Your task to perform on an android device: Search for top rated burger restaurants on Google Maps Image 0: 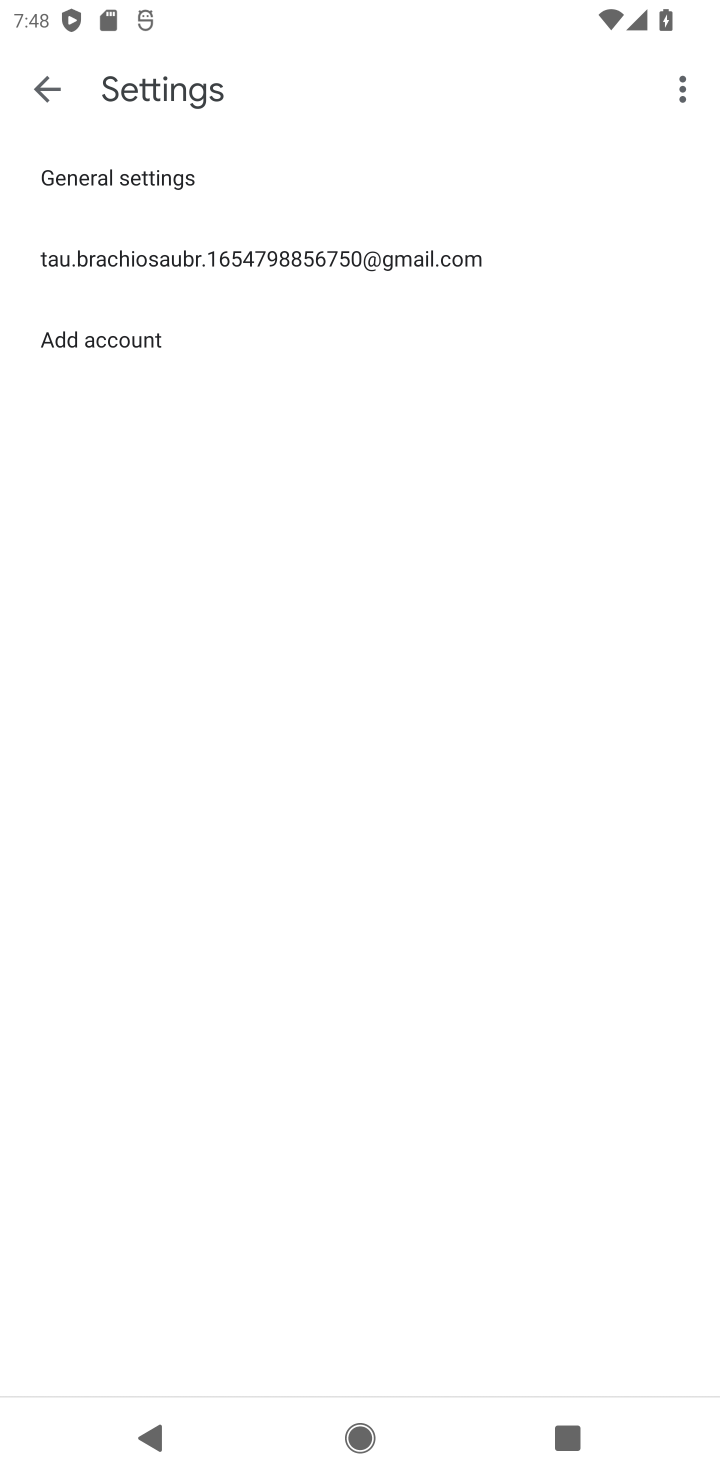
Step 0: press home button
Your task to perform on an android device: Search for top rated burger restaurants on Google Maps Image 1: 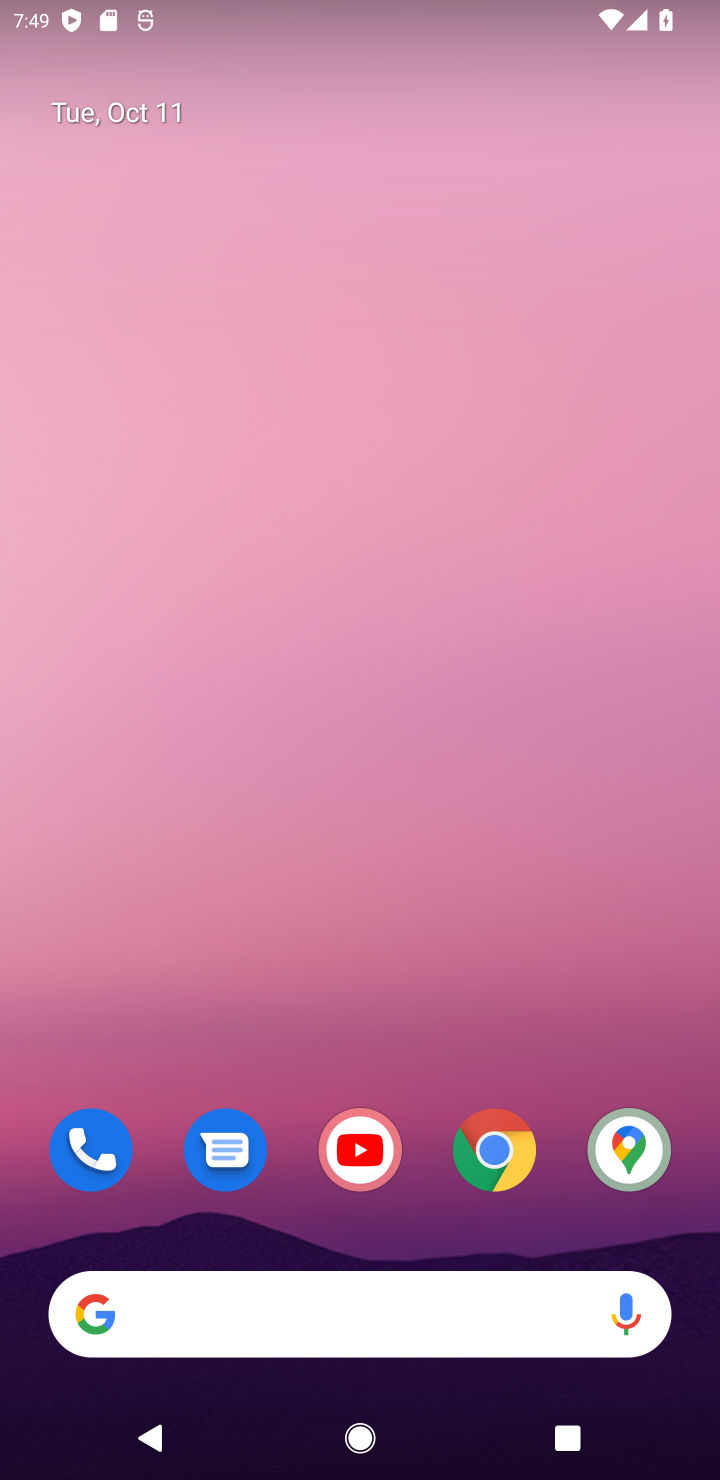
Step 1: click (615, 1146)
Your task to perform on an android device: Search for top rated burger restaurants on Google Maps Image 2: 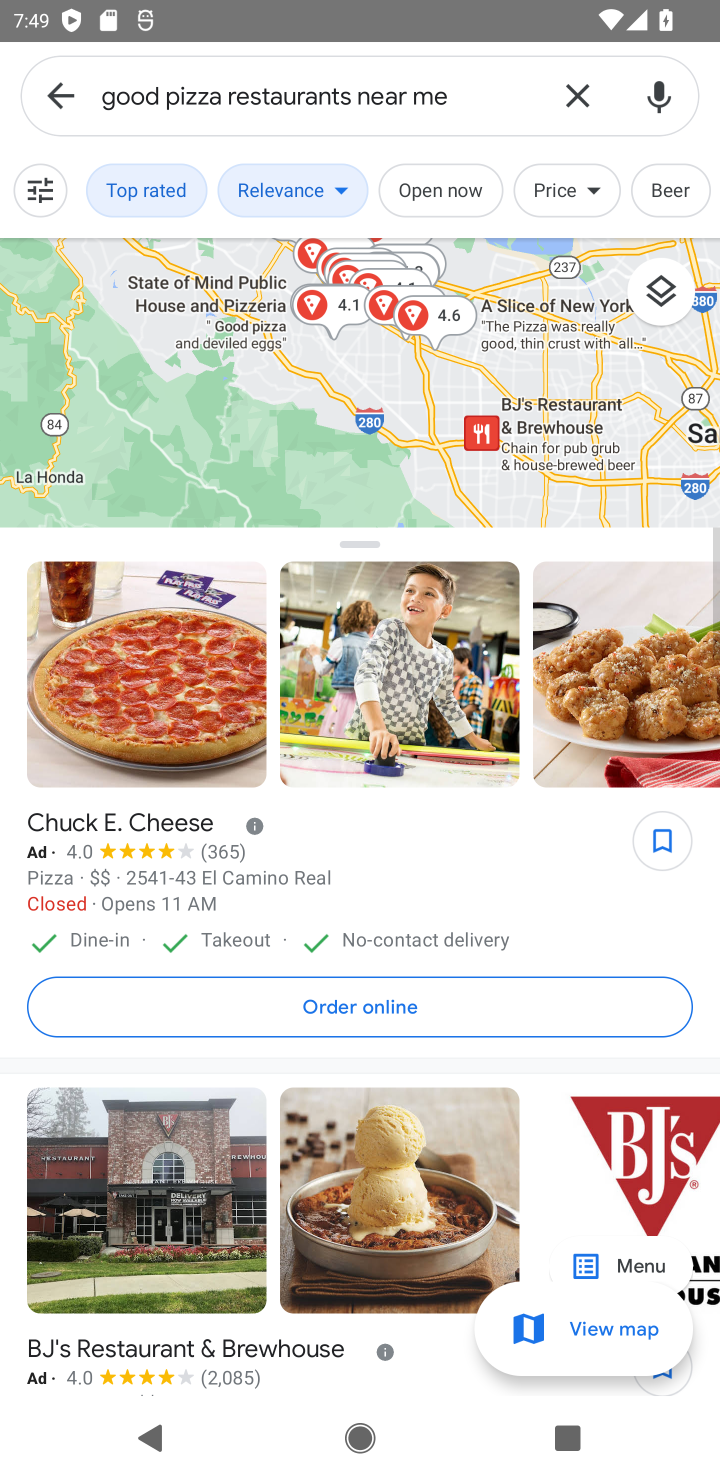
Step 2: click (580, 102)
Your task to perform on an android device: Search for top rated burger restaurants on Google Maps Image 3: 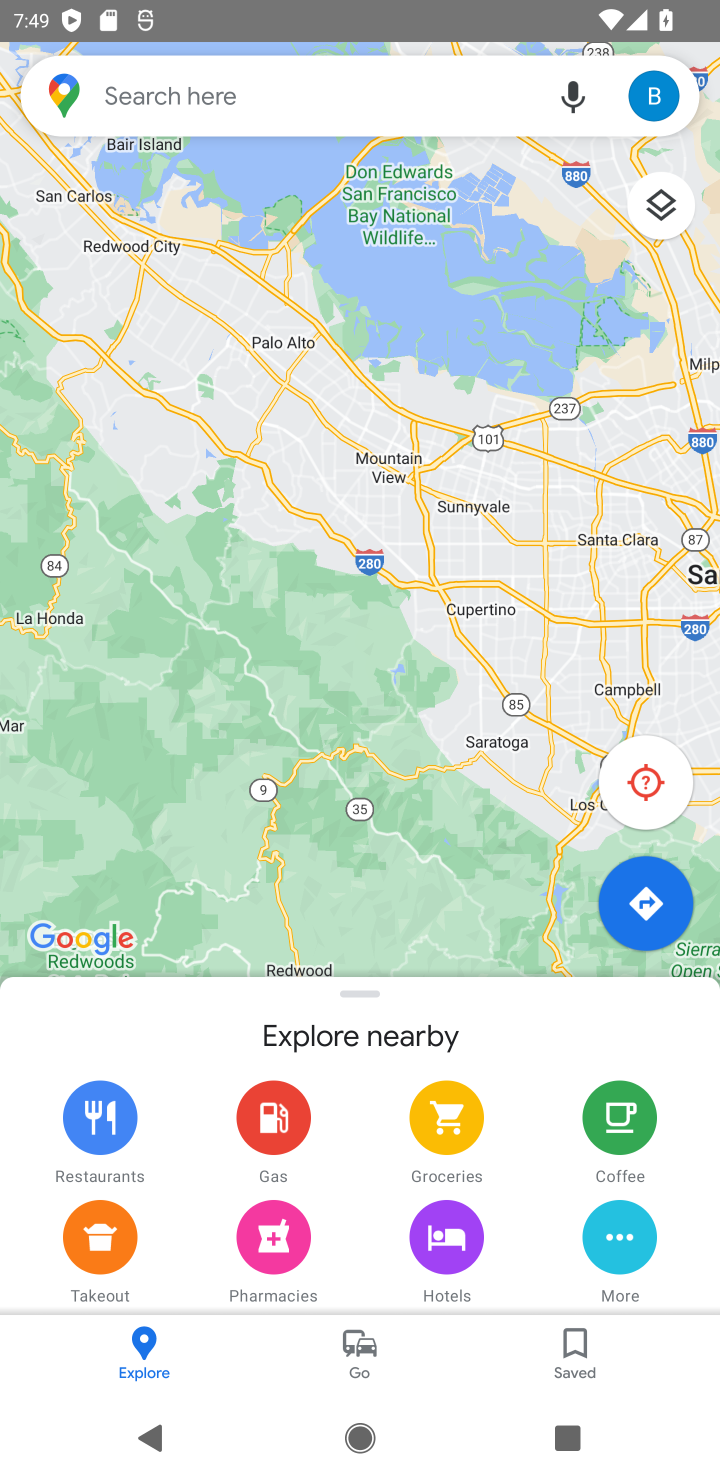
Step 3: click (285, 94)
Your task to perform on an android device: Search for top rated burger restaurants on Google Maps Image 4: 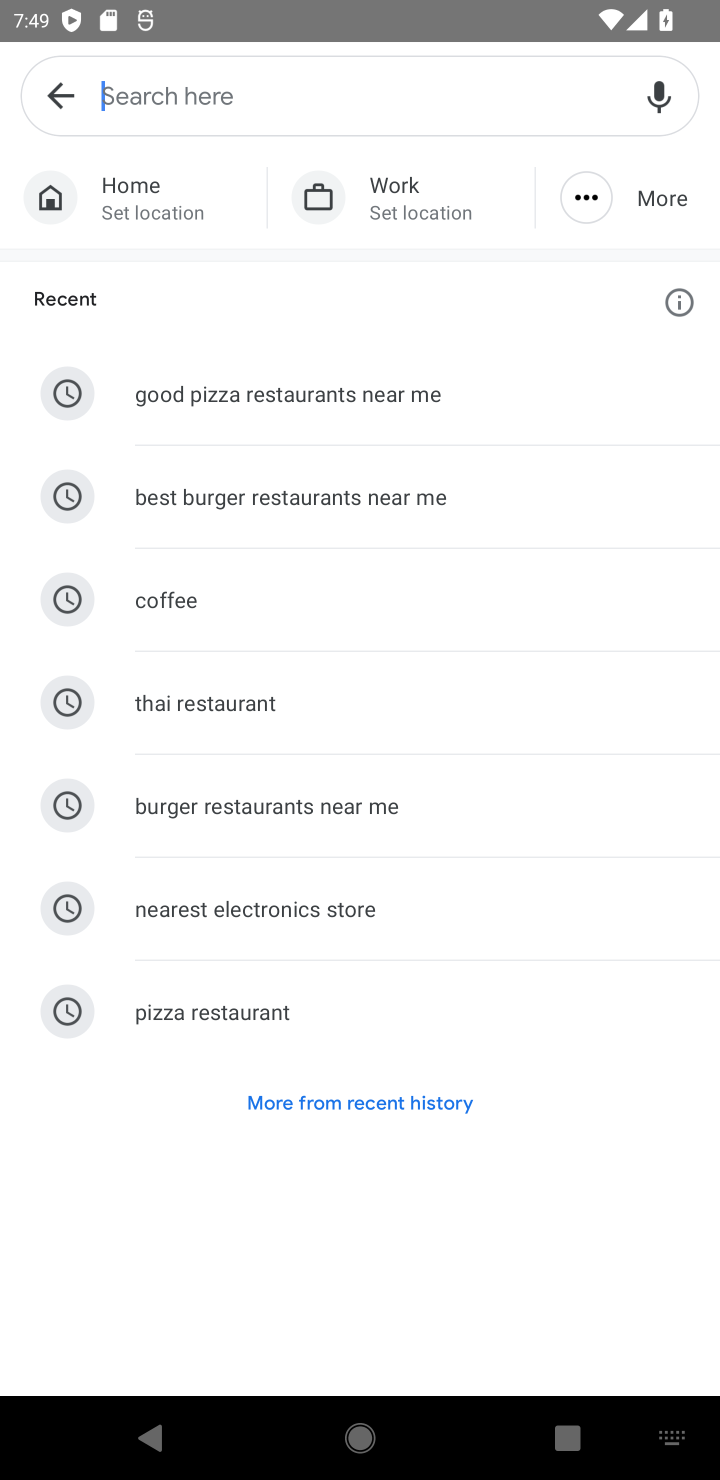
Step 4: type "top rated burger restaurants"
Your task to perform on an android device: Search for top rated burger restaurants on Google Maps Image 5: 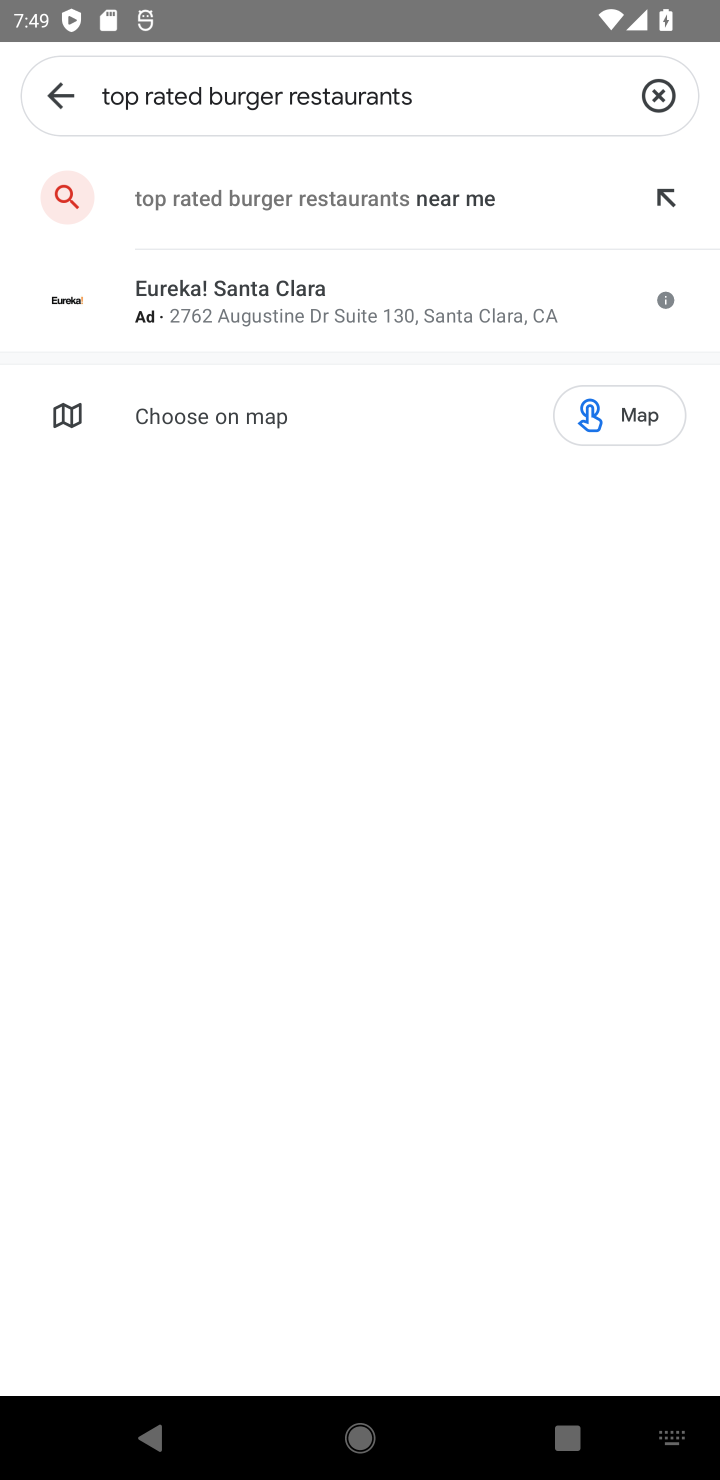
Step 5: click (285, 202)
Your task to perform on an android device: Search for top rated burger restaurants on Google Maps Image 6: 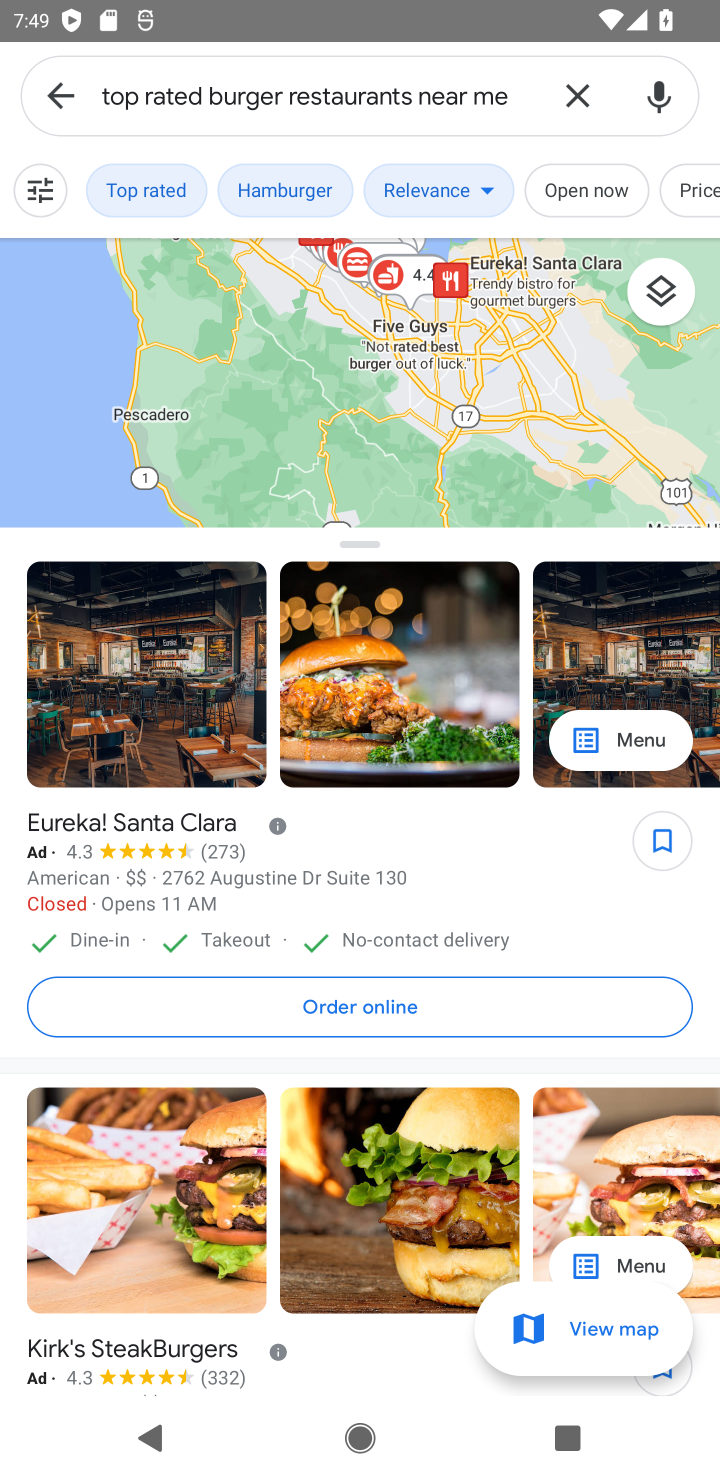
Step 6: task complete